Your task to perform on an android device: Go to eBay Image 0: 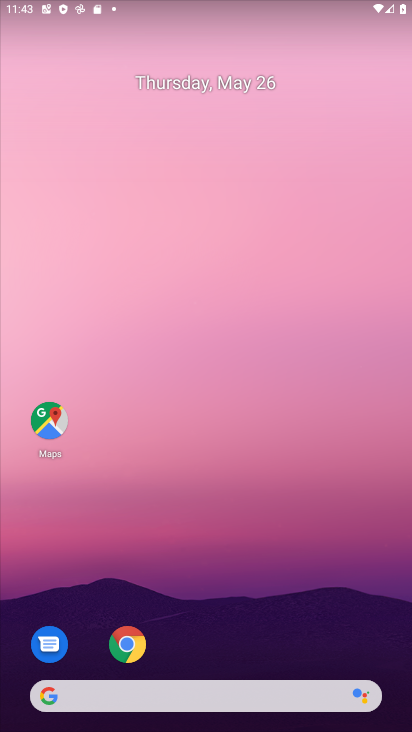
Step 0: drag from (355, 623) to (305, 52)
Your task to perform on an android device: Go to eBay Image 1: 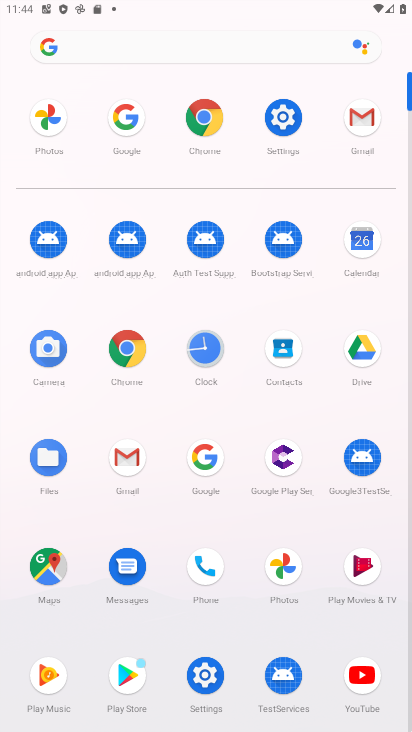
Step 1: click (206, 460)
Your task to perform on an android device: Go to eBay Image 2: 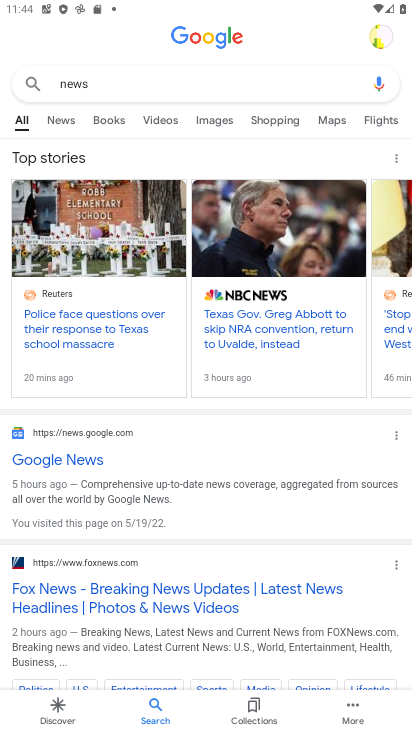
Step 2: press back button
Your task to perform on an android device: Go to eBay Image 3: 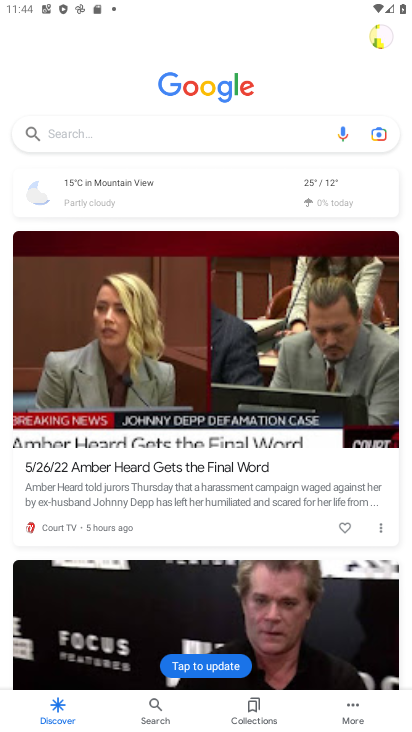
Step 3: click (162, 125)
Your task to perform on an android device: Go to eBay Image 4: 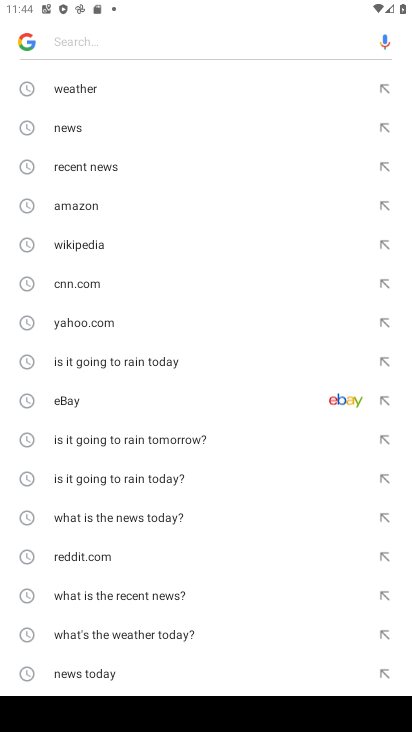
Step 4: click (146, 401)
Your task to perform on an android device: Go to eBay Image 5: 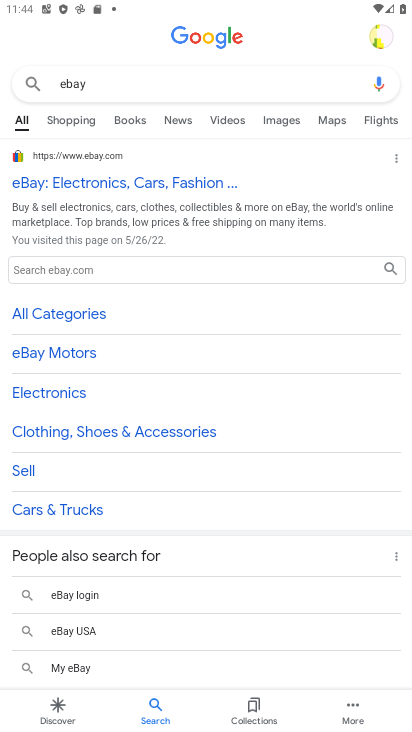
Step 5: task complete